Your task to perform on an android device: turn on improve location accuracy Image 0: 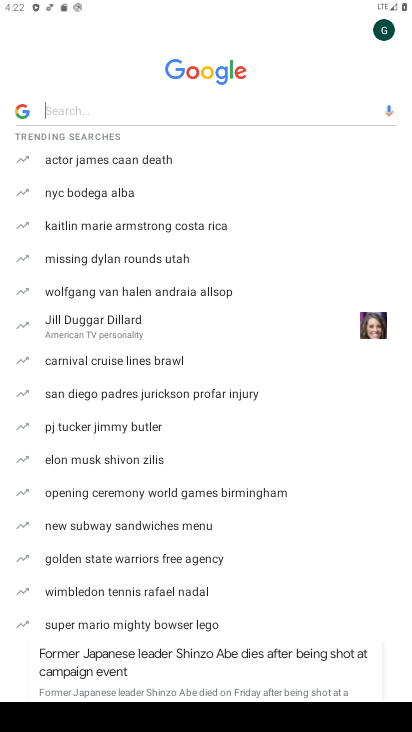
Step 0: press home button
Your task to perform on an android device: turn on improve location accuracy Image 1: 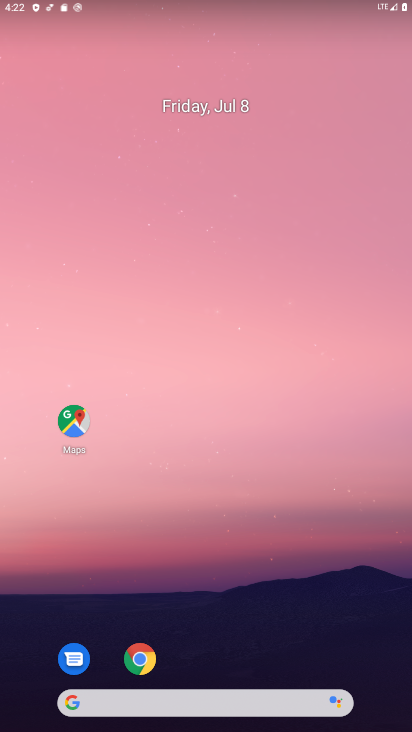
Step 1: drag from (293, 654) to (198, 1)
Your task to perform on an android device: turn on improve location accuracy Image 2: 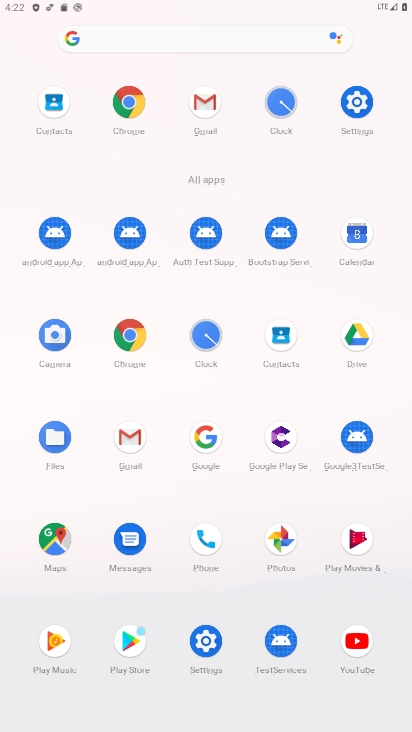
Step 2: click (348, 96)
Your task to perform on an android device: turn on improve location accuracy Image 3: 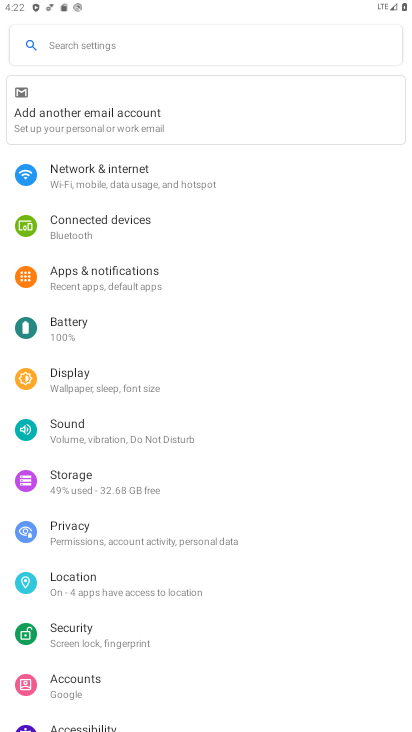
Step 3: click (102, 576)
Your task to perform on an android device: turn on improve location accuracy Image 4: 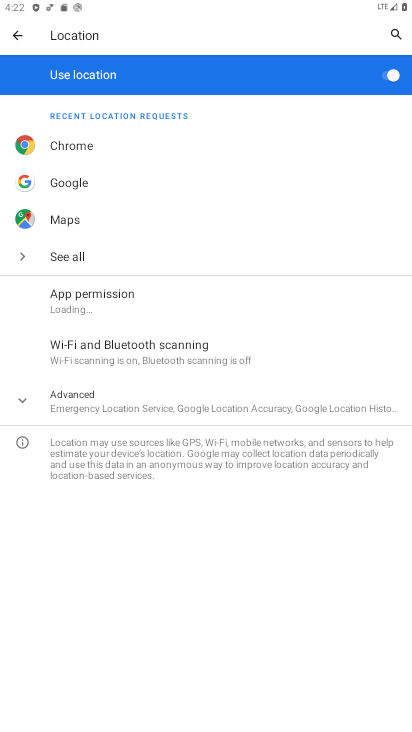
Step 4: click (93, 401)
Your task to perform on an android device: turn on improve location accuracy Image 5: 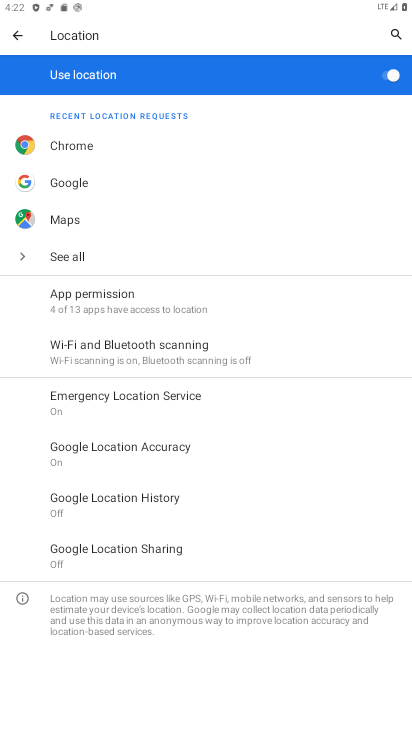
Step 5: click (92, 456)
Your task to perform on an android device: turn on improve location accuracy Image 6: 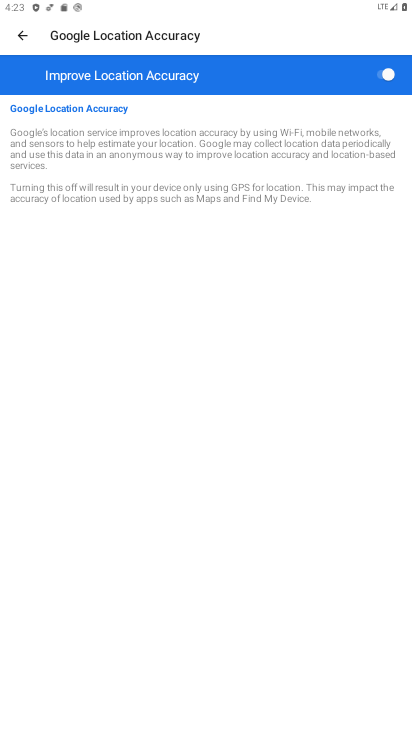
Step 6: task complete